Your task to perform on an android device: Open calendar and show me the fourth week of next month Image 0: 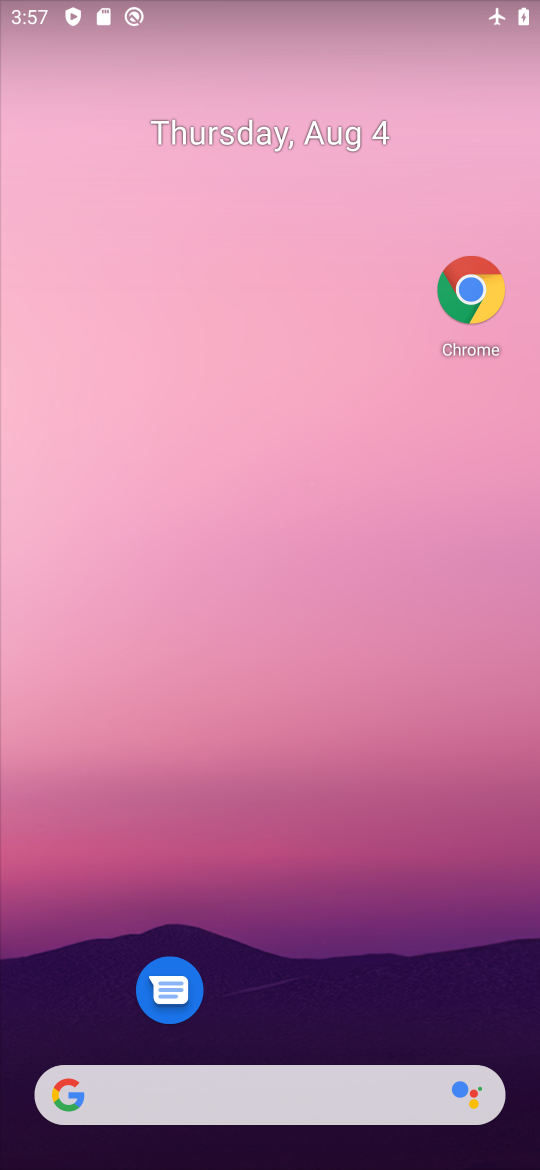
Step 0: drag from (353, 1029) to (278, 85)
Your task to perform on an android device: Open calendar and show me the fourth week of next month Image 1: 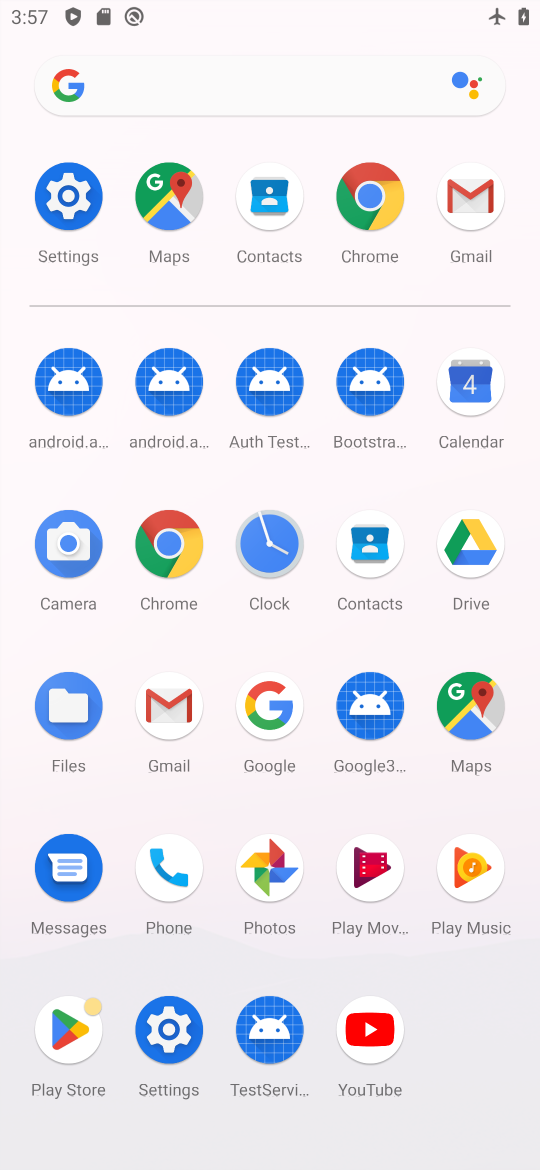
Step 1: task complete